Your task to perform on an android device: open the mobile data screen to see how much data has been used Image 0: 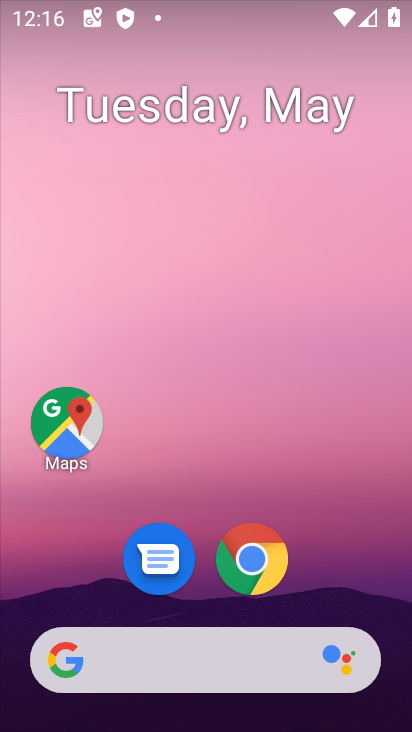
Step 0: drag from (392, 574) to (361, 235)
Your task to perform on an android device: open the mobile data screen to see how much data has been used Image 1: 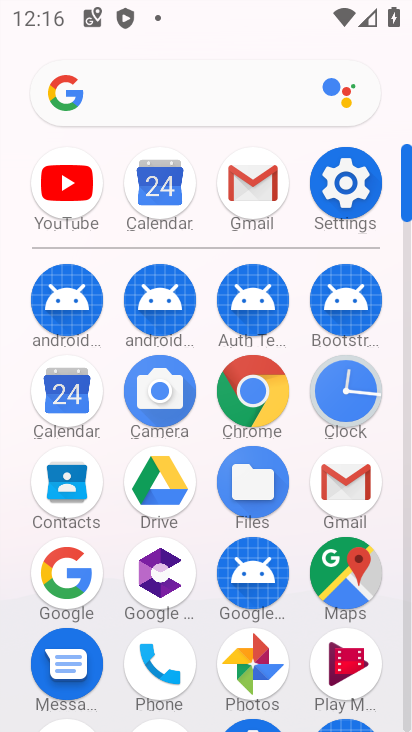
Step 1: click (341, 213)
Your task to perform on an android device: open the mobile data screen to see how much data has been used Image 2: 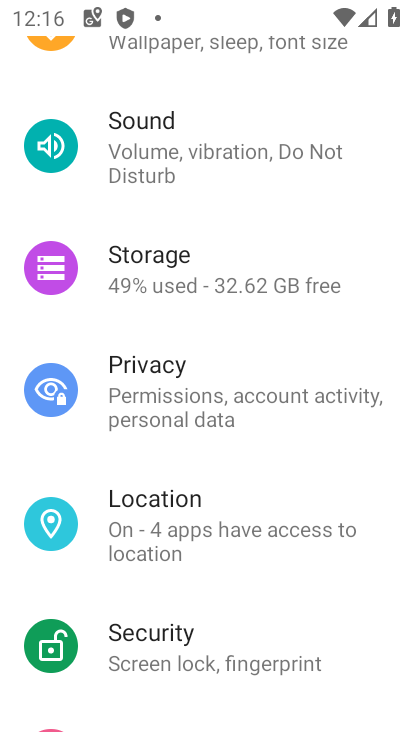
Step 2: drag from (262, 151) to (207, 617)
Your task to perform on an android device: open the mobile data screen to see how much data has been used Image 3: 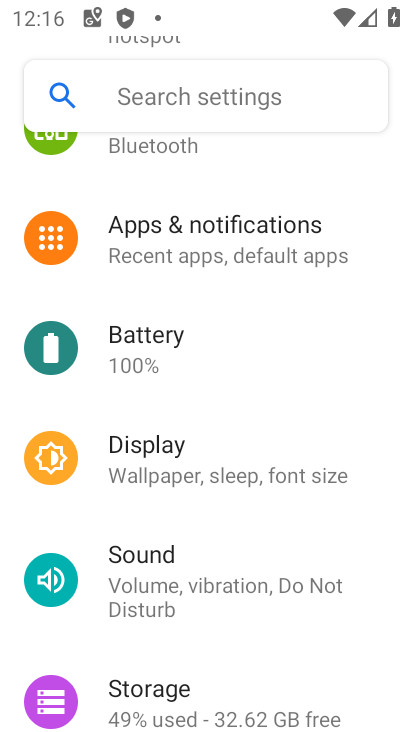
Step 3: drag from (226, 225) to (211, 648)
Your task to perform on an android device: open the mobile data screen to see how much data has been used Image 4: 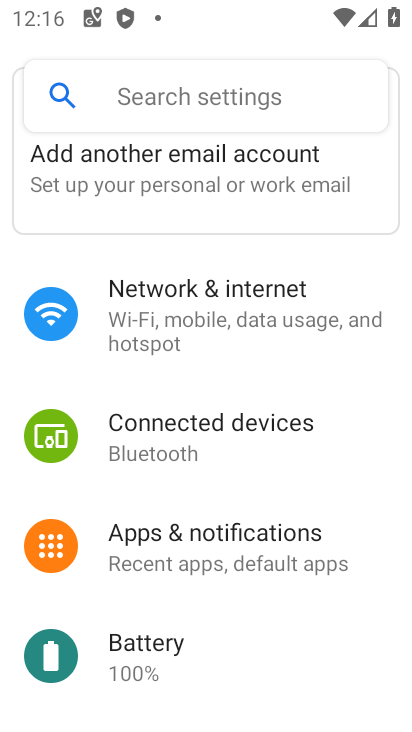
Step 4: click (261, 333)
Your task to perform on an android device: open the mobile data screen to see how much data has been used Image 5: 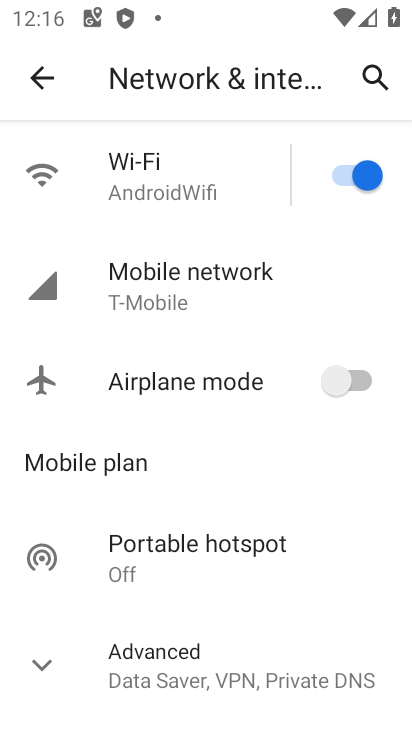
Step 5: click (225, 323)
Your task to perform on an android device: open the mobile data screen to see how much data has been used Image 6: 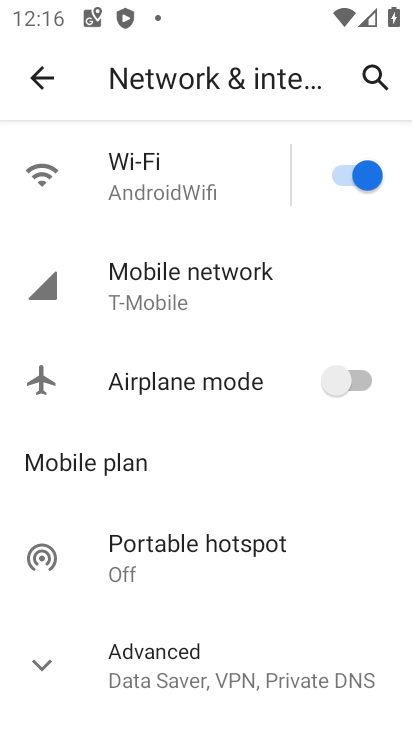
Step 6: task complete